Your task to perform on an android device: Go to ESPN.com Image 0: 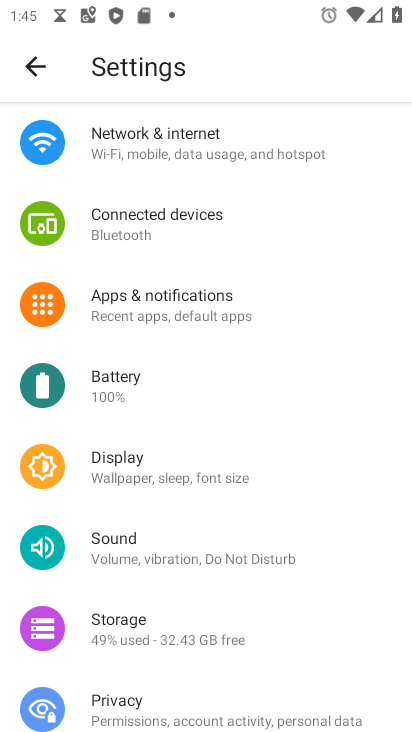
Step 0: press home button
Your task to perform on an android device: Go to ESPN.com Image 1: 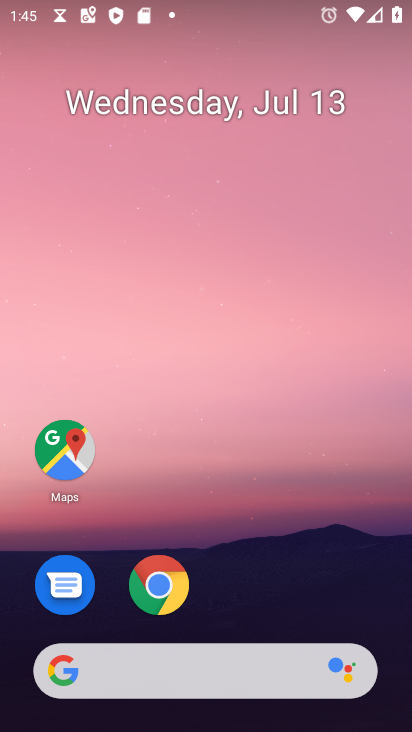
Step 1: click (157, 592)
Your task to perform on an android device: Go to ESPN.com Image 2: 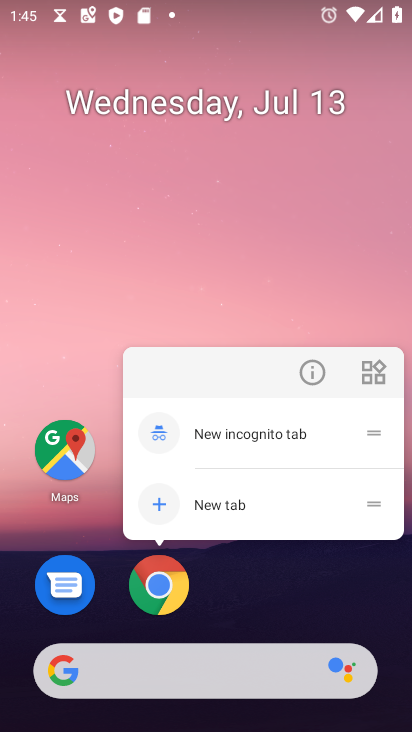
Step 2: click (159, 581)
Your task to perform on an android device: Go to ESPN.com Image 3: 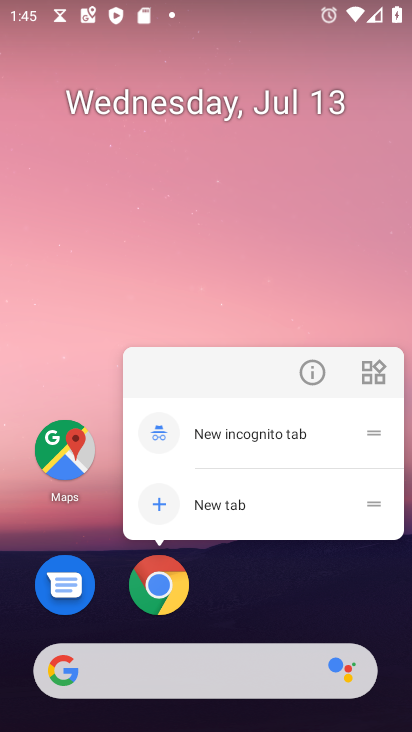
Step 3: click (153, 590)
Your task to perform on an android device: Go to ESPN.com Image 4: 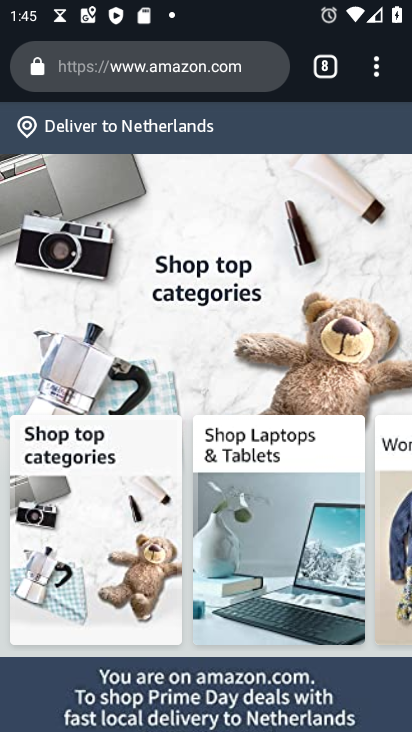
Step 4: drag from (379, 77) to (283, 140)
Your task to perform on an android device: Go to ESPN.com Image 5: 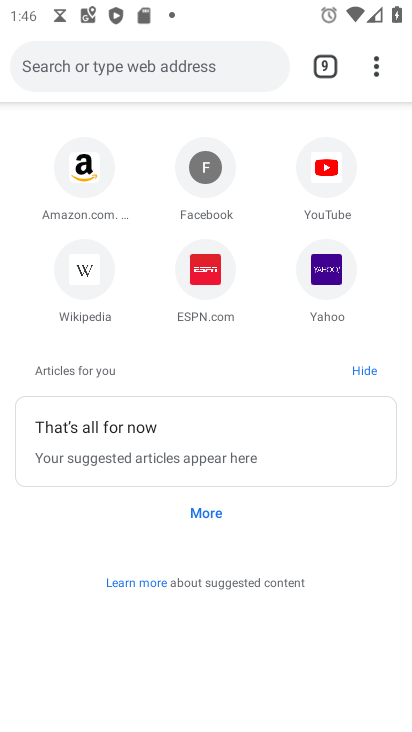
Step 5: click (199, 69)
Your task to perform on an android device: Go to ESPN.com Image 6: 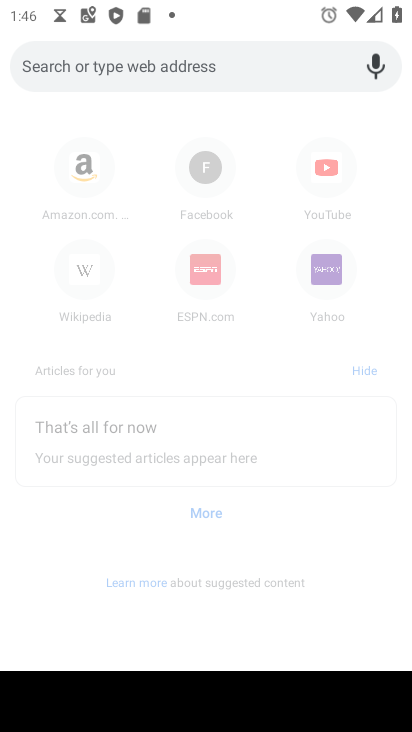
Step 6: type "espn.com"
Your task to perform on an android device: Go to ESPN.com Image 7: 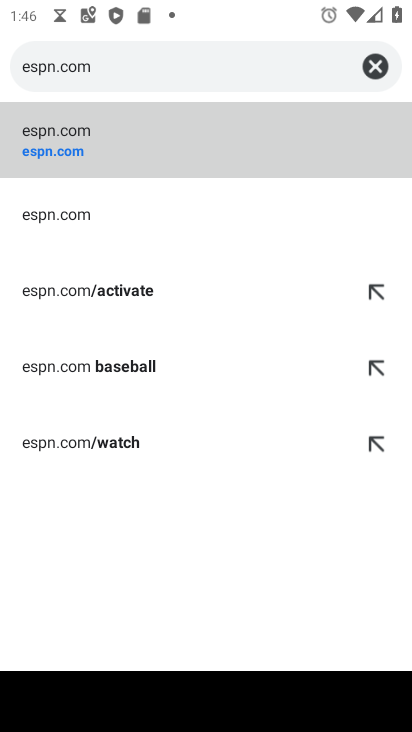
Step 7: click (191, 137)
Your task to perform on an android device: Go to ESPN.com Image 8: 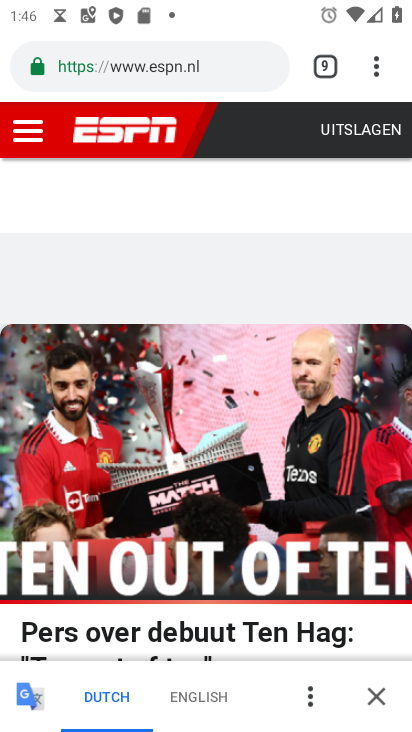
Step 8: click (192, 691)
Your task to perform on an android device: Go to ESPN.com Image 9: 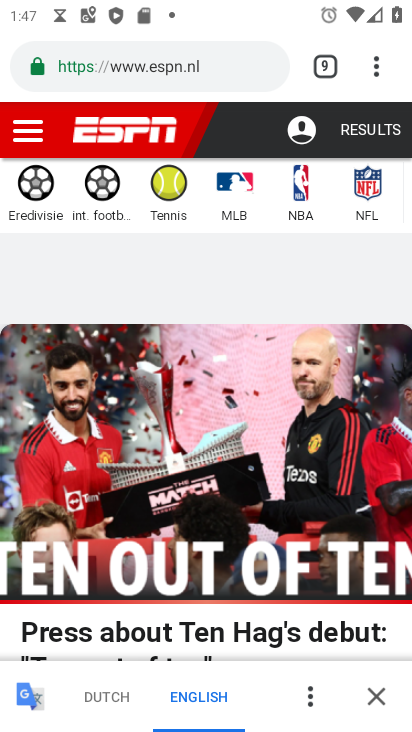
Step 9: task complete